Your task to perform on an android device: Search for razer blade on costco, select the first entry, add it to the cart, then select checkout. Image 0: 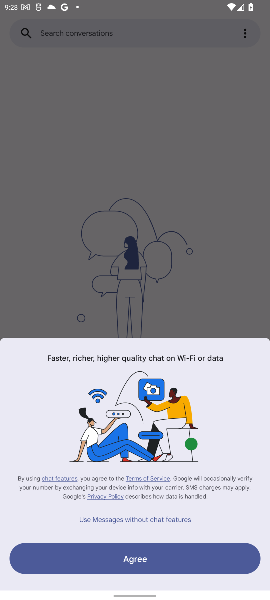
Step 0: press home button
Your task to perform on an android device: Search for razer blade on costco, select the first entry, add it to the cart, then select checkout. Image 1: 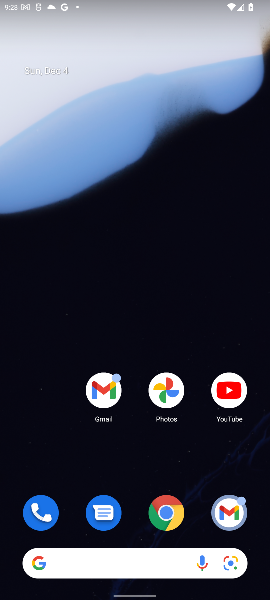
Step 1: click (166, 510)
Your task to perform on an android device: Search for razer blade on costco, select the first entry, add it to the cart, then select checkout. Image 2: 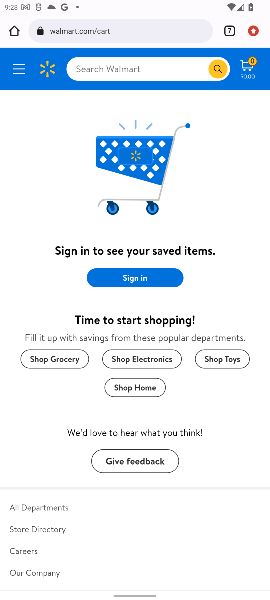
Step 2: click (228, 31)
Your task to perform on an android device: Search for razer blade on costco, select the first entry, add it to the cart, then select checkout. Image 3: 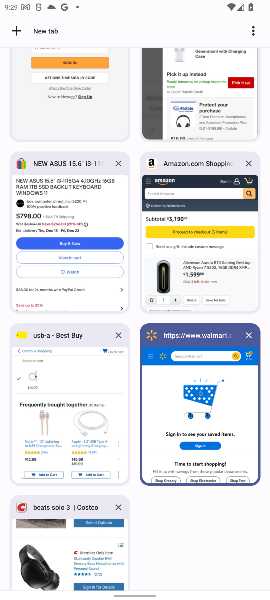
Step 3: click (91, 518)
Your task to perform on an android device: Search for razer blade on costco, select the first entry, add it to the cart, then select checkout. Image 4: 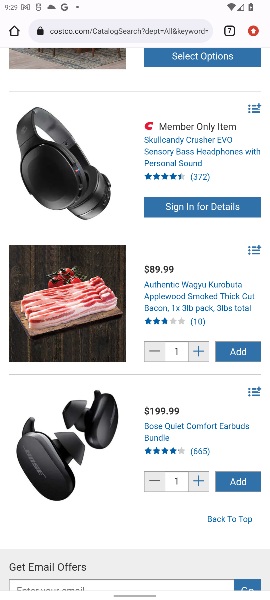
Step 4: drag from (126, 114) to (203, 485)
Your task to perform on an android device: Search for razer blade on costco, select the first entry, add it to the cart, then select checkout. Image 5: 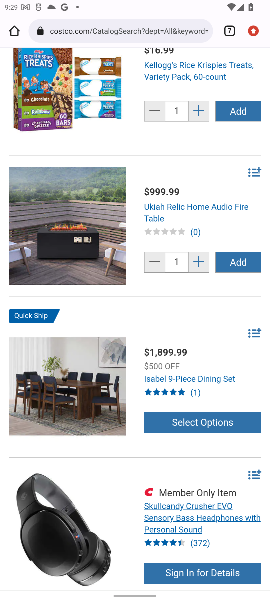
Step 5: drag from (130, 78) to (126, 306)
Your task to perform on an android device: Search for razer blade on costco, select the first entry, add it to the cart, then select checkout. Image 6: 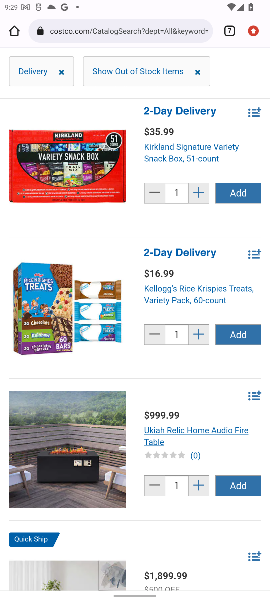
Step 6: drag from (116, 114) to (161, 338)
Your task to perform on an android device: Search for razer blade on costco, select the first entry, add it to the cart, then select checkout. Image 7: 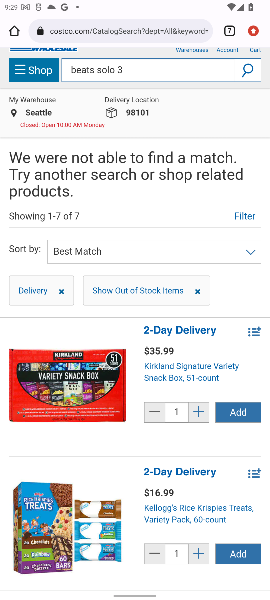
Step 7: drag from (173, 123) to (162, 316)
Your task to perform on an android device: Search for razer blade on costco, select the first entry, add it to the cart, then select checkout. Image 8: 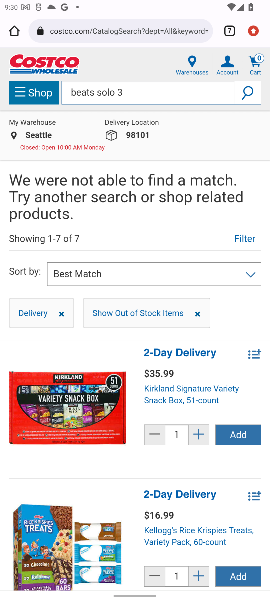
Step 8: click (174, 93)
Your task to perform on an android device: Search for razer blade on costco, select the first entry, add it to the cart, then select checkout. Image 9: 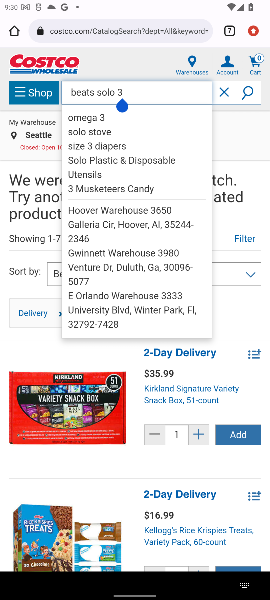
Step 9: click (227, 85)
Your task to perform on an android device: Search for razer blade on costco, select the first entry, add it to the cart, then select checkout. Image 10: 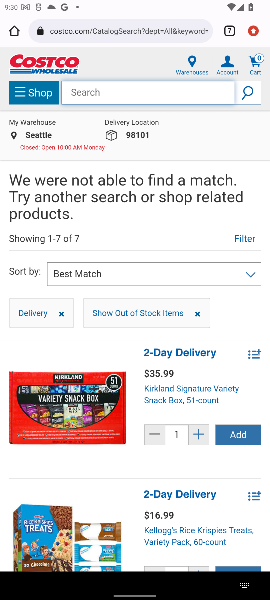
Step 10: type "razer blade "
Your task to perform on an android device: Search for razer blade on costco, select the first entry, add it to the cart, then select checkout. Image 11: 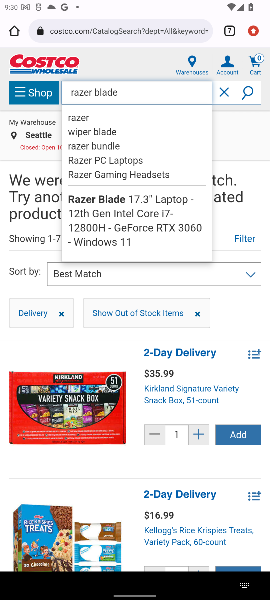
Step 11: click (248, 93)
Your task to perform on an android device: Search for razer blade on costco, select the first entry, add it to the cart, then select checkout. Image 12: 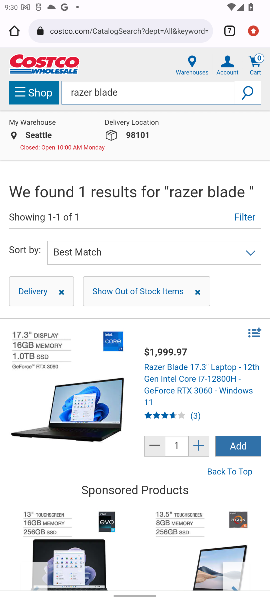
Step 12: click (243, 435)
Your task to perform on an android device: Search for razer blade on costco, select the first entry, add it to the cart, then select checkout. Image 13: 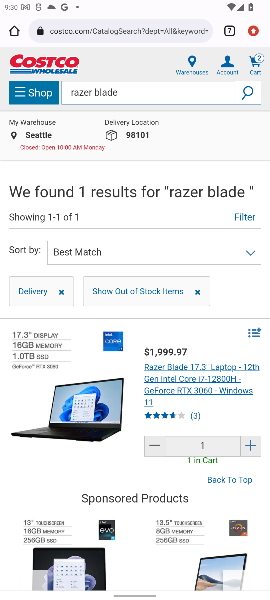
Step 13: click (257, 68)
Your task to perform on an android device: Search for razer blade on costco, select the first entry, add it to the cart, then select checkout. Image 14: 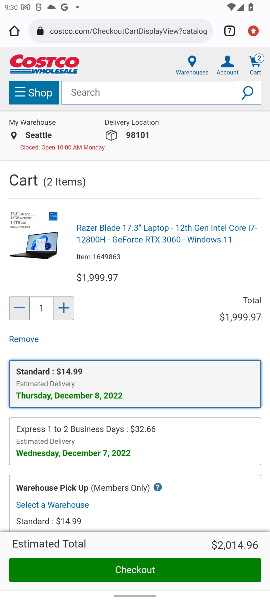
Step 14: click (127, 575)
Your task to perform on an android device: Search for razer blade on costco, select the first entry, add it to the cart, then select checkout. Image 15: 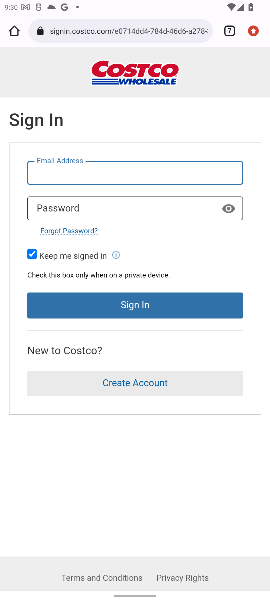
Step 15: task complete